Your task to perform on an android device: toggle improve location accuracy Image 0: 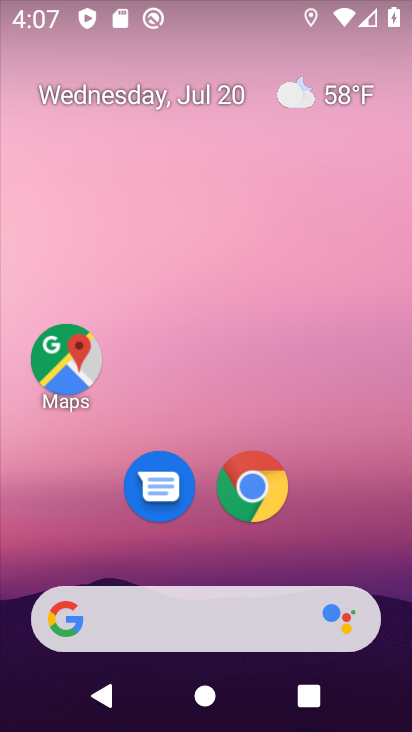
Step 0: drag from (117, 558) to (160, 16)
Your task to perform on an android device: toggle improve location accuracy Image 1: 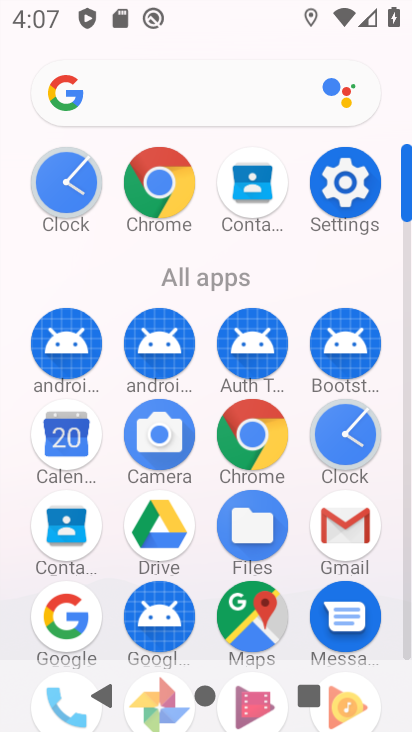
Step 1: click (340, 185)
Your task to perform on an android device: toggle improve location accuracy Image 2: 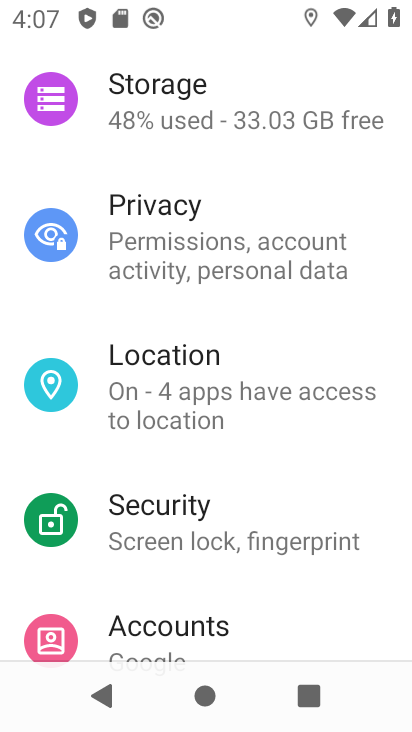
Step 2: click (156, 369)
Your task to perform on an android device: toggle improve location accuracy Image 3: 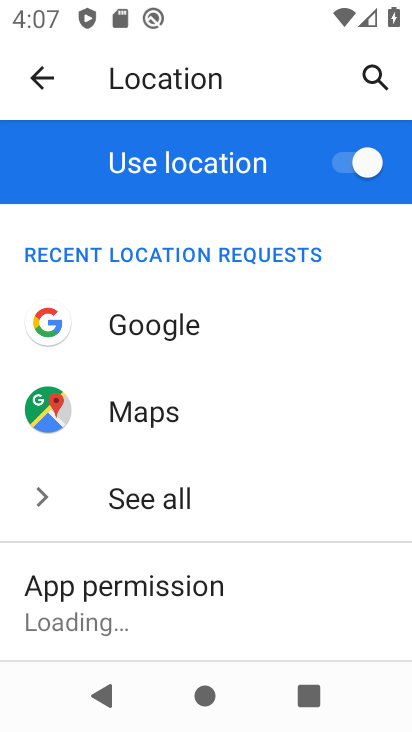
Step 3: drag from (166, 564) to (224, 43)
Your task to perform on an android device: toggle improve location accuracy Image 4: 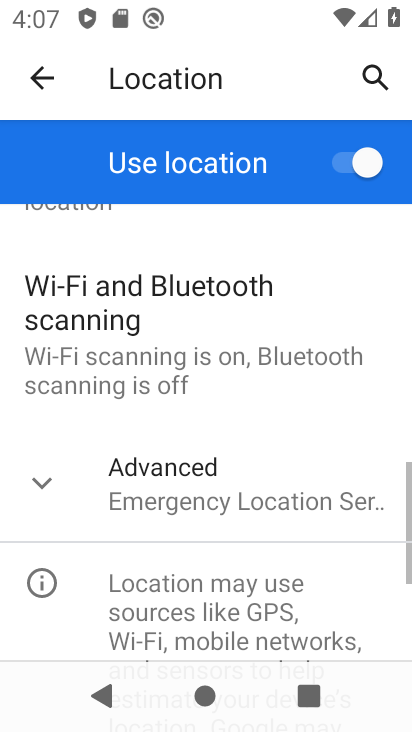
Step 4: click (160, 468)
Your task to perform on an android device: toggle improve location accuracy Image 5: 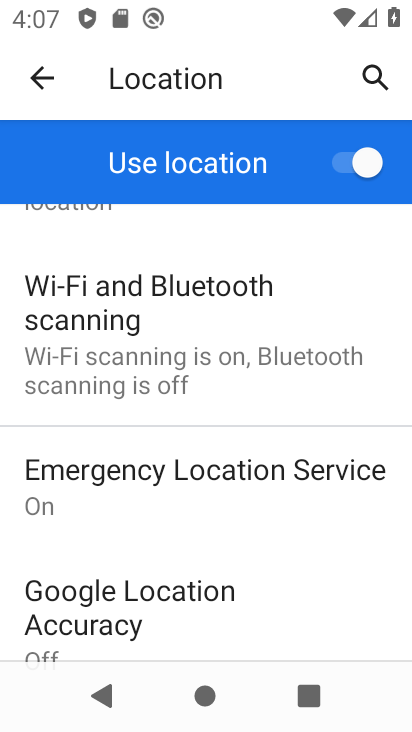
Step 5: click (110, 621)
Your task to perform on an android device: toggle improve location accuracy Image 6: 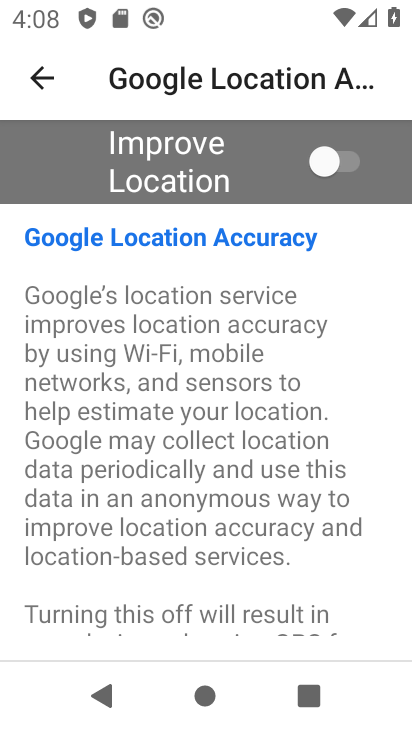
Step 6: click (320, 162)
Your task to perform on an android device: toggle improve location accuracy Image 7: 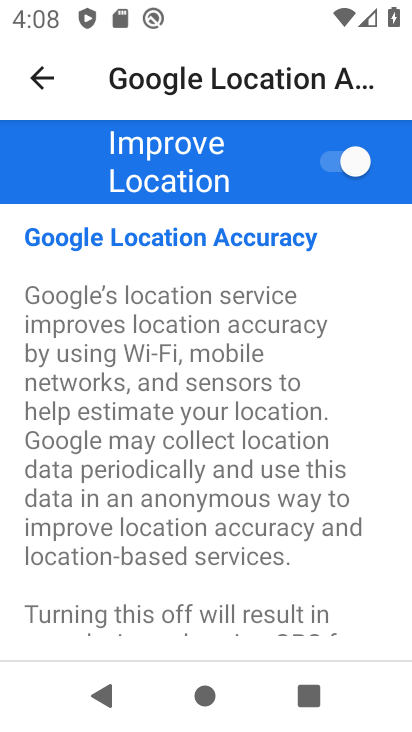
Step 7: task complete